Your task to perform on an android device: Go to ESPN.com Image 0: 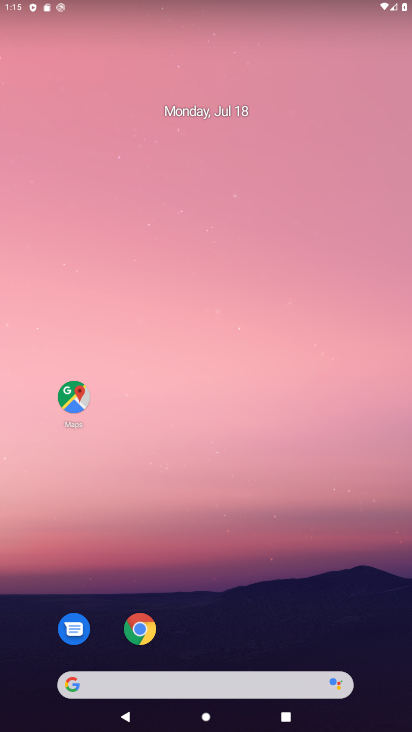
Step 0: click (134, 625)
Your task to perform on an android device: Go to ESPN.com Image 1: 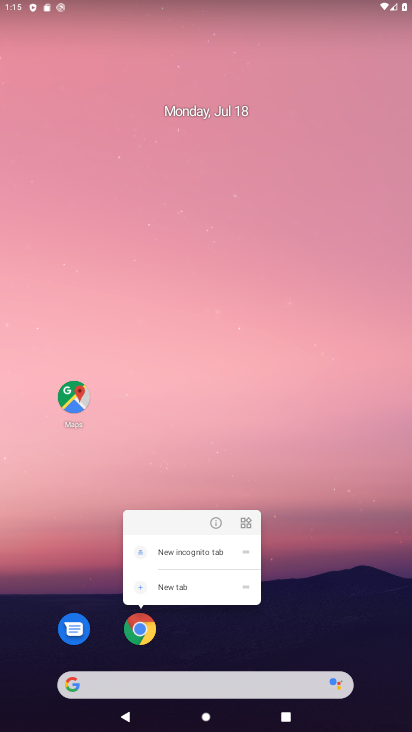
Step 1: click (137, 624)
Your task to perform on an android device: Go to ESPN.com Image 2: 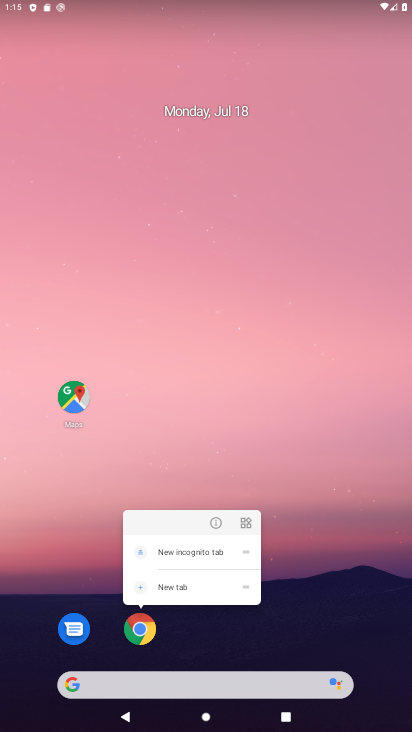
Step 2: click (138, 628)
Your task to perform on an android device: Go to ESPN.com Image 3: 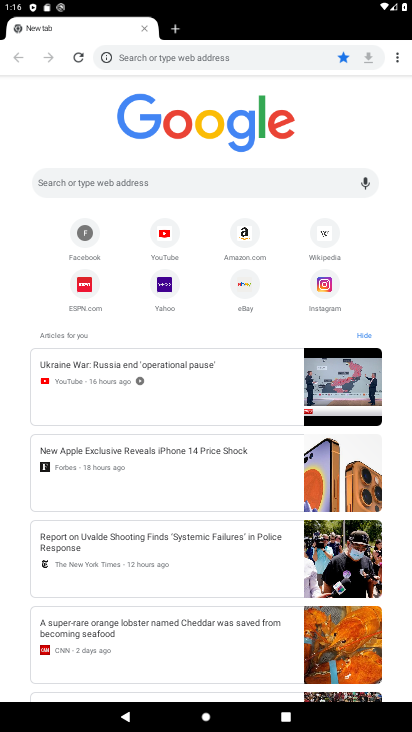
Step 3: click (82, 283)
Your task to perform on an android device: Go to ESPN.com Image 4: 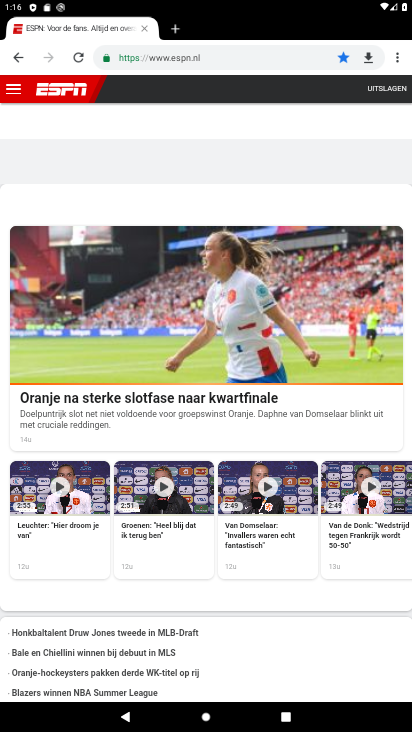
Step 4: drag from (229, 609) to (196, 156)
Your task to perform on an android device: Go to ESPN.com Image 5: 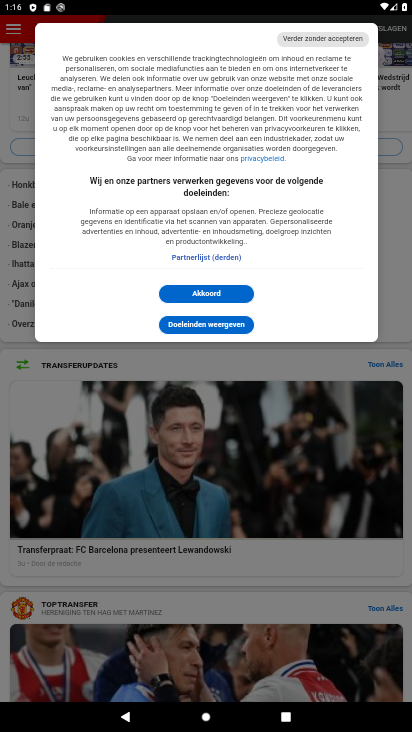
Step 5: click (207, 291)
Your task to perform on an android device: Go to ESPN.com Image 6: 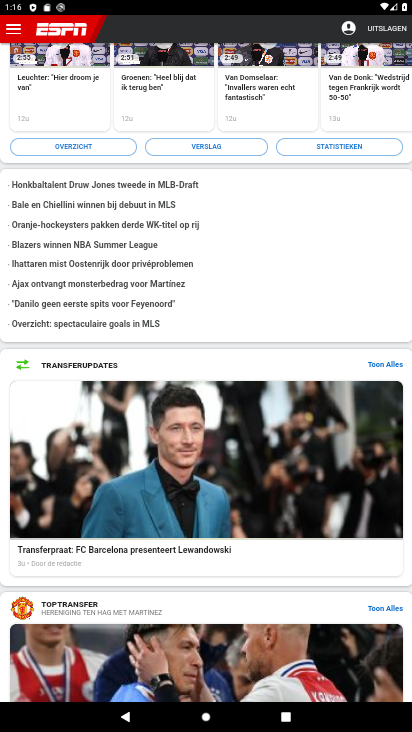
Step 6: task complete